Your task to perform on an android device: turn on the 24-hour format for clock Image 0: 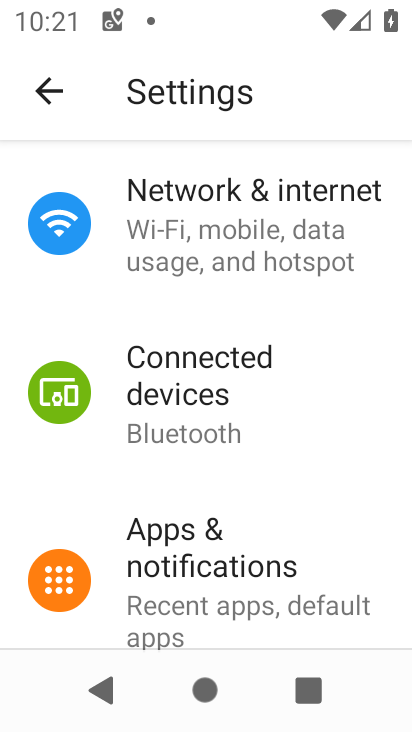
Step 0: press home button
Your task to perform on an android device: turn on the 24-hour format for clock Image 1: 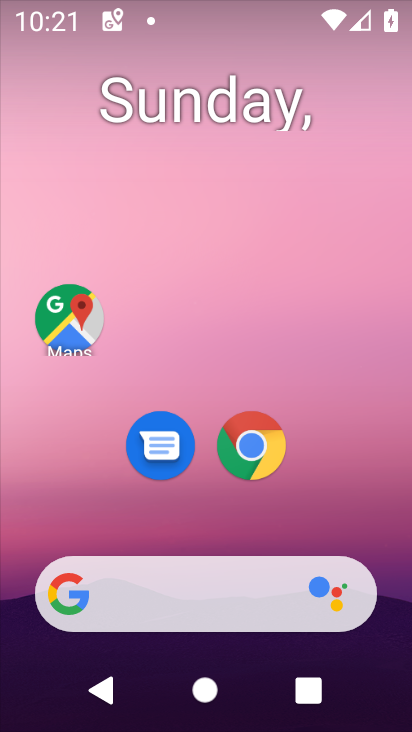
Step 1: drag from (327, 508) to (384, 4)
Your task to perform on an android device: turn on the 24-hour format for clock Image 2: 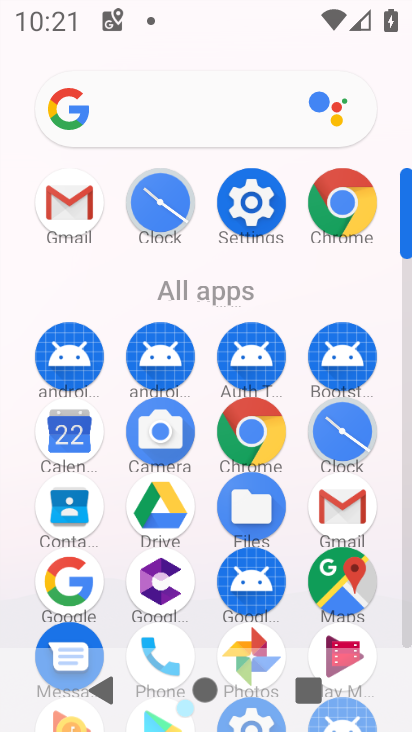
Step 2: click (129, 208)
Your task to perform on an android device: turn on the 24-hour format for clock Image 3: 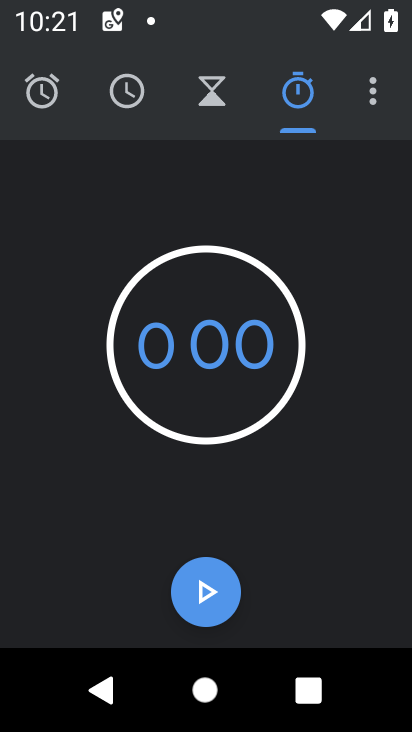
Step 3: drag from (368, 108) to (211, 192)
Your task to perform on an android device: turn on the 24-hour format for clock Image 4: 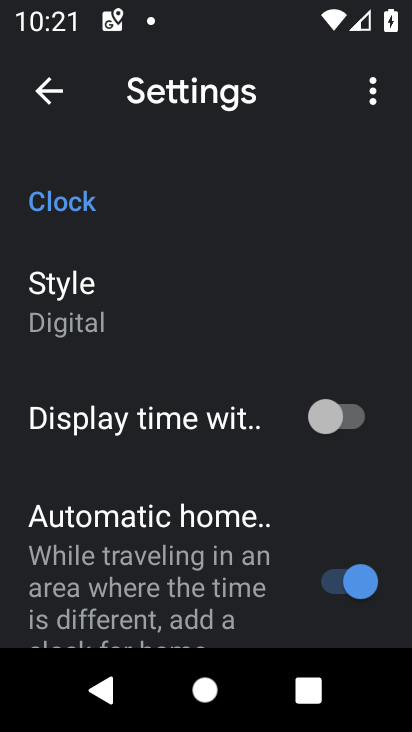
Step 4: drag from (193, 439) to (158, 274)
Your task to perform on an android device: turn on the 24-hour format for clock Image 5: 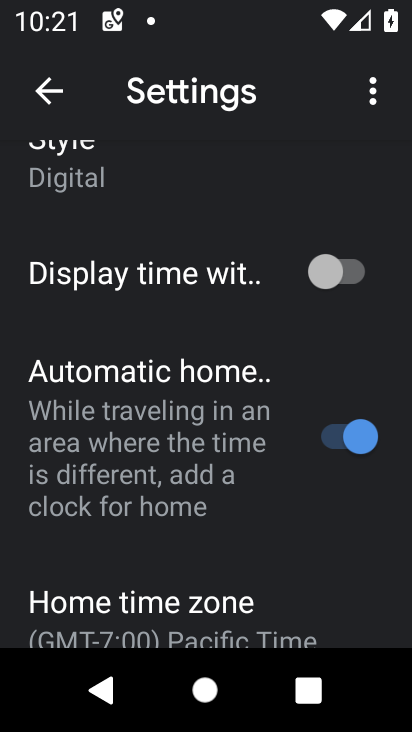
Step 5: drag from (210, 481) to (178, 270)
Your task to perform on an android device: turn on the 24-hour format for clock Image 6: 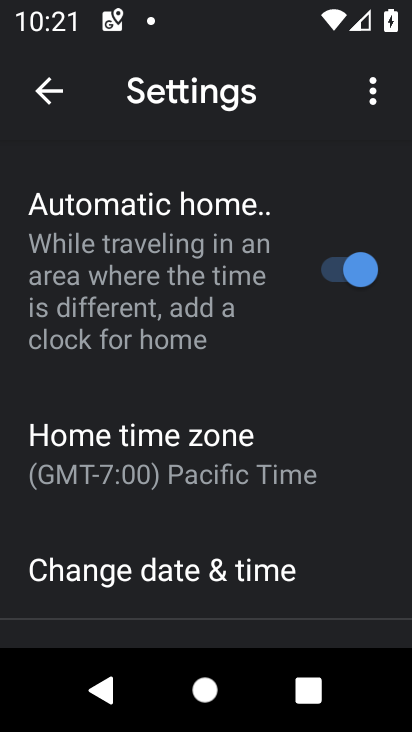
Step 6: drag from (189, 552) to (180, 382)
Your task to perform on an android device: turn on the 24-hour format for clock Image 7: 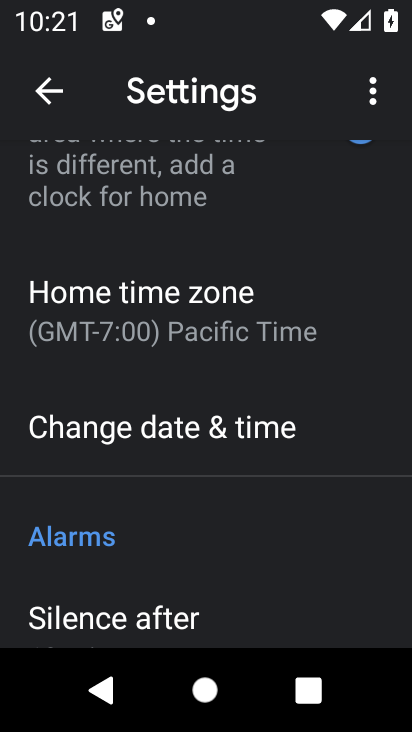
Step 7: click (199, 417)
Your task to perform on an android device: turn on the 24-hour format for clock Image 8: 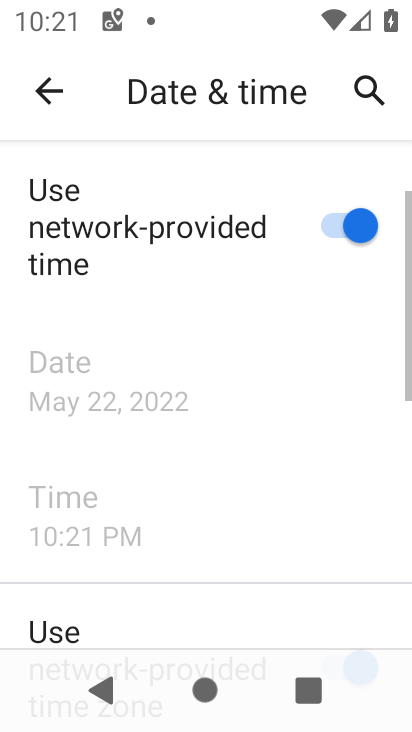
Step 8: drag from (216, 434) to (229, 108)
Your task to perform on an android device: turn on the 24-hour format for clock Image 9: 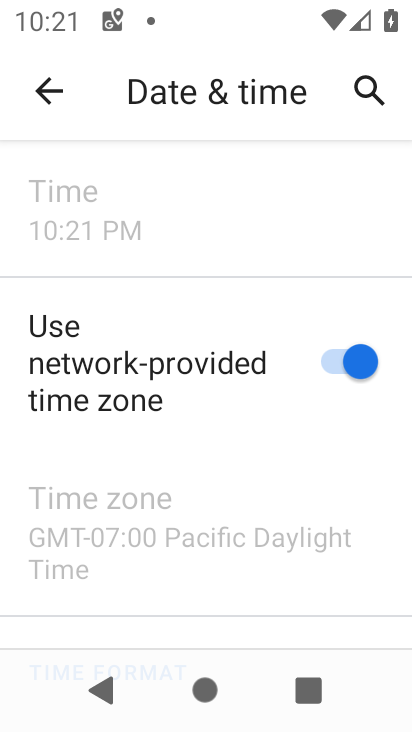
Step 9: drag from (137, 574) to (191, 222)
Your task to perform on an android device: turn on the 24-hour format for clock Image 10: 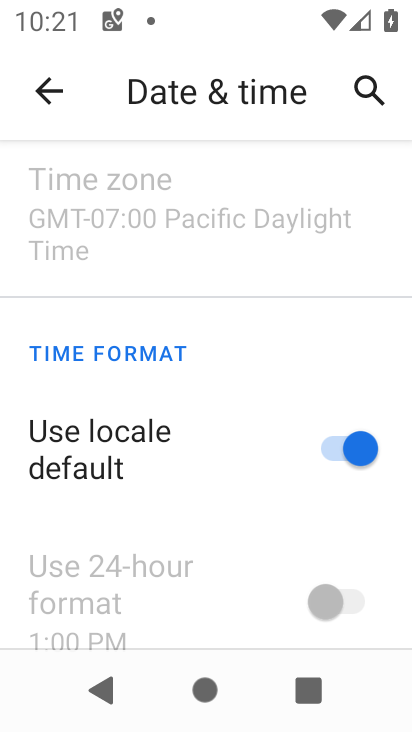
Step 10: click (334, 458)
Your task to perform on an android device: turn on the 24-hour format for clock Image 11: 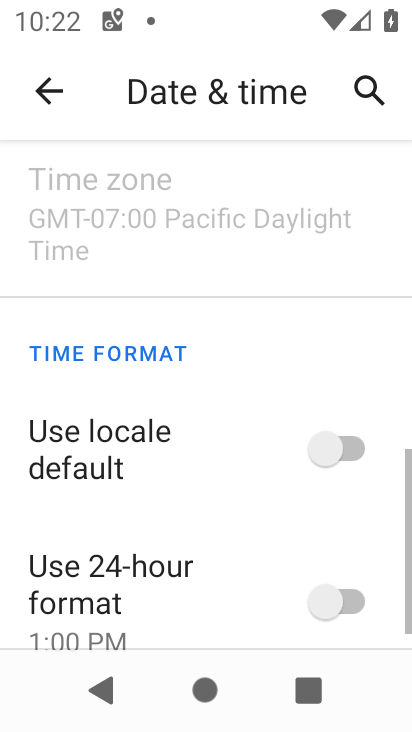
Step 11: click (355, 606)
Your task to perform on an android device: turn on the 24-hour format for clock Image 12: 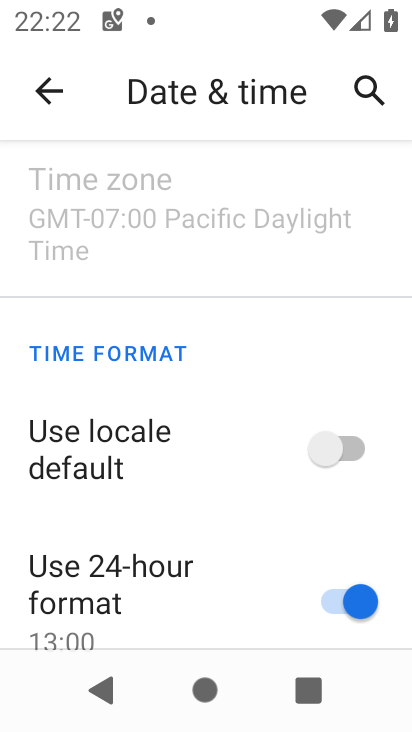
Step 12: task complete